Your task to perform on an android device: set an alarm Image 0: 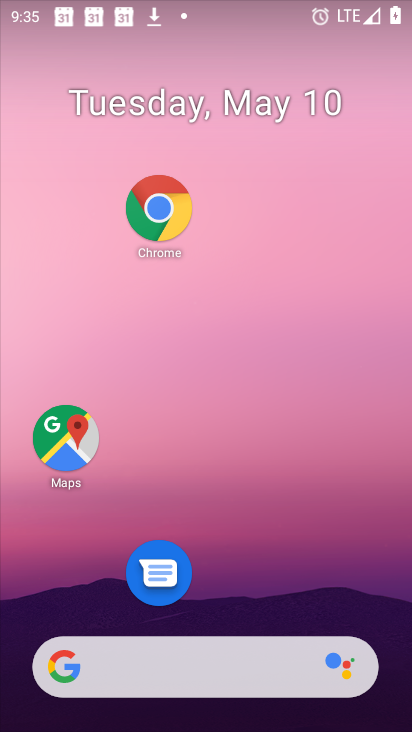
Step 0: press home button
Your task to perform on an android device: set an alarm Image 1: 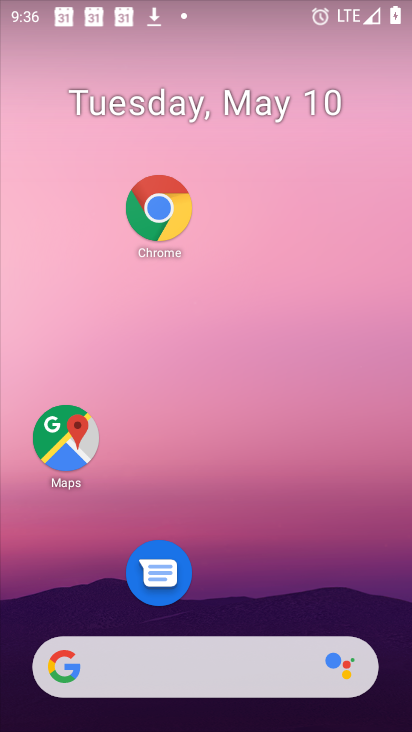
Step 1: drag from (278, 701) to (385, 161)
Your task to perform on an android device: set an alarm Image 2: 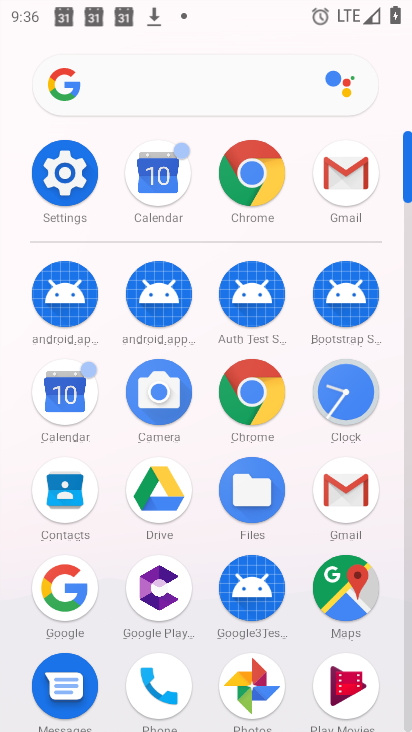
Step 2: click (350, 387)
Your task to perform on an android device: set an alarm Image 3: 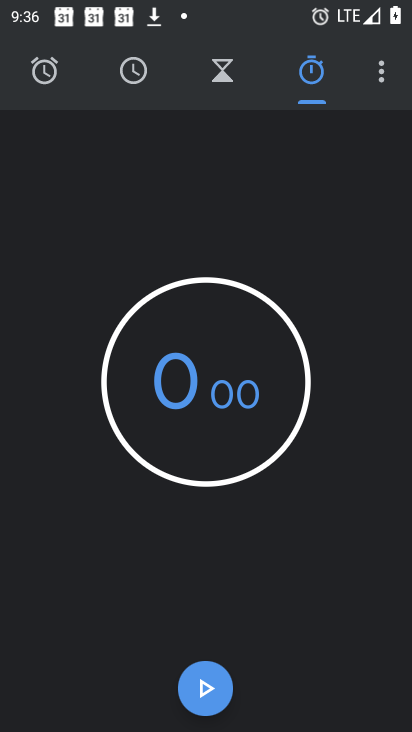
Step 3: click (45, 90)
Your task to perform on an android device: set an alarm Image 4: 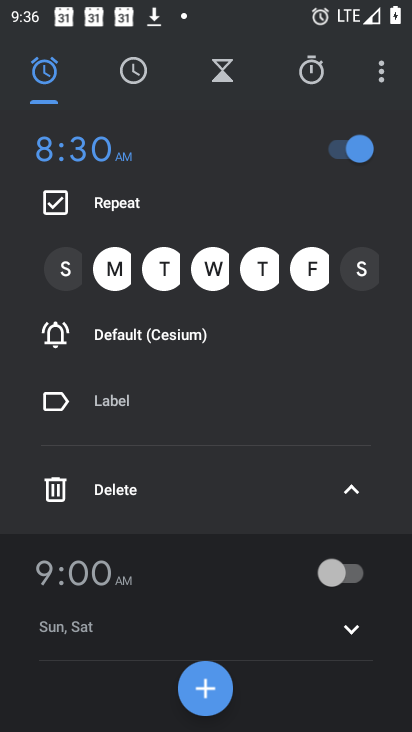
Step 4: click (61, 276)
Your task to perform on an android device: set an alarm Image 5: 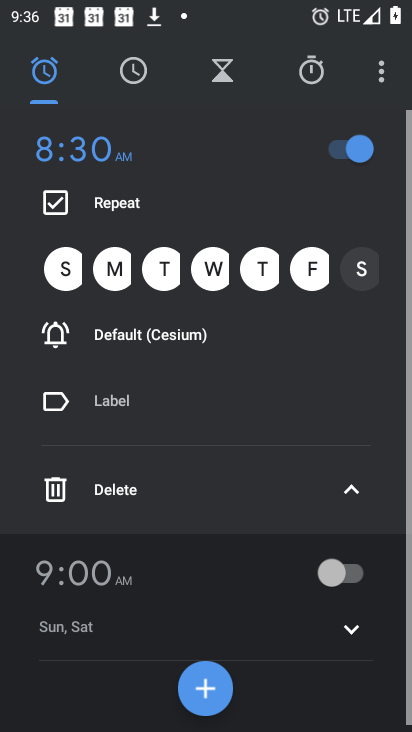
Step 5: task complete